Your task to perform on an android device: View the shopping cart on newegg.com. Search for "razer blackwidow" on newegg.com, select the first entry, and add it to the cart. Image 0: 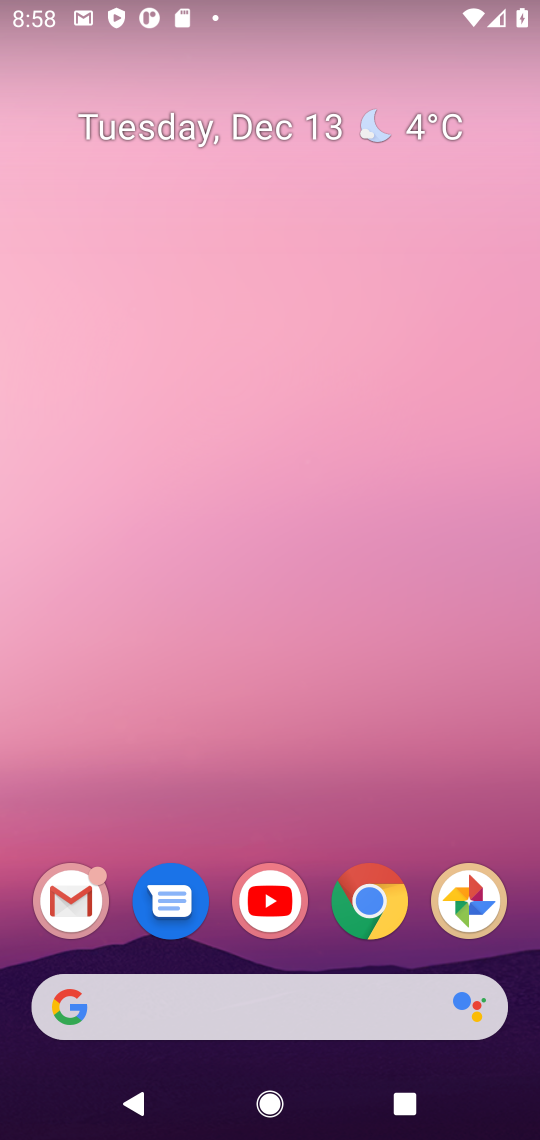
Step 0: click (370, 900)
Your task to perform on an android device: View the shopping cart on newegg.com. Search for "razer blackwidow" on newegg.com, select the first entry, and add it to the cart. Image 1: 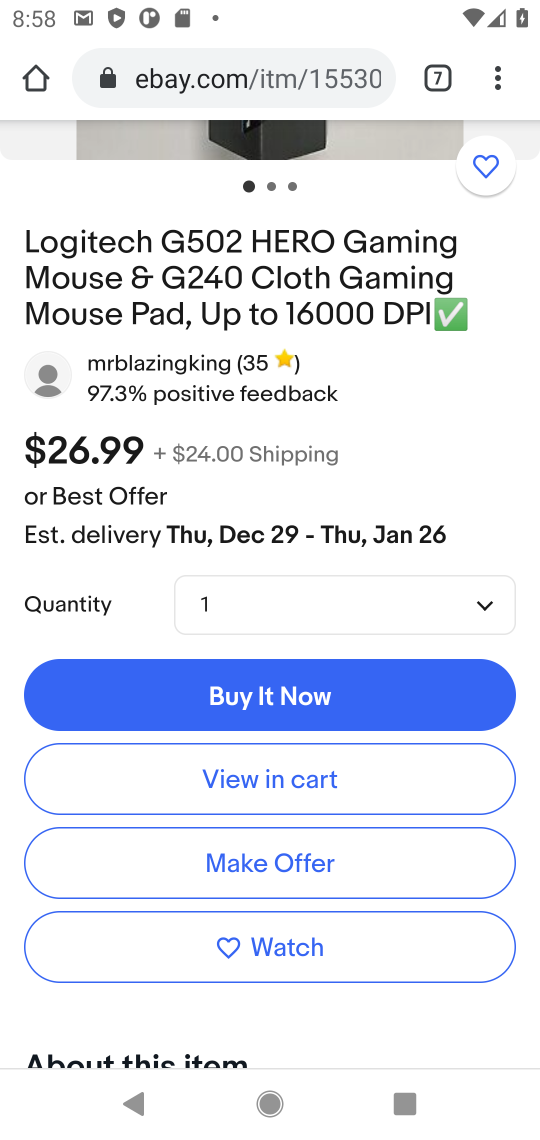
Step 1: click (434, 76)
Your task to perform on an android device: View the shopping cart on newegg.com. Search for "razer blackwidow" on newegg.com, select the first entry, and add it to the cart. Image 2: 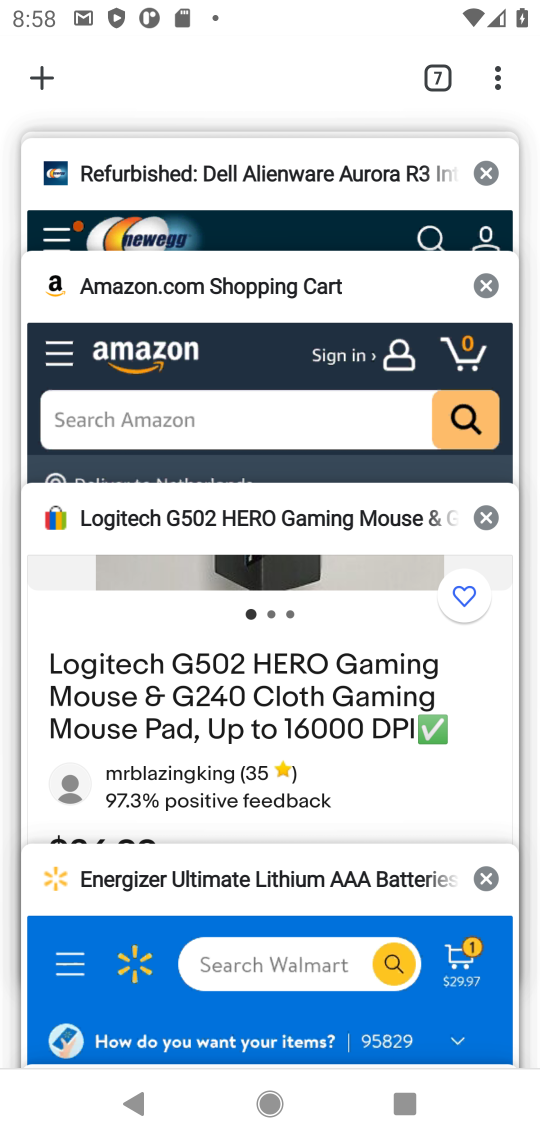
Step 2: click (322, 186)
Your task to perform on an android device: View the shopping cart on newegg.com. Search for "razer blackwidow" on newegg.com, select the first entry, and add it to the cart. Image 3: 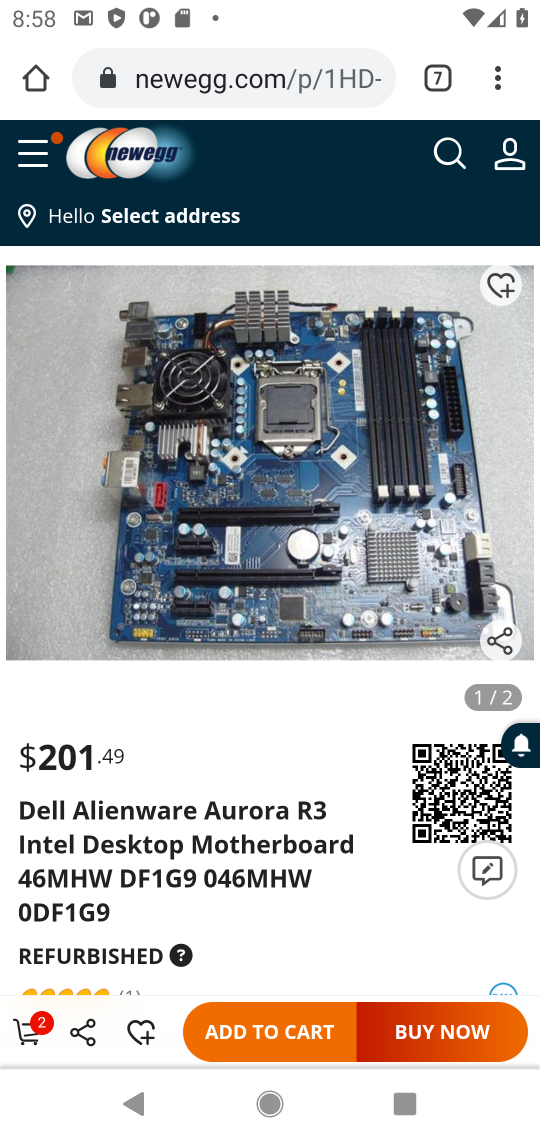
Step 3: click (443, 140)
Your task to perform on an android device: View the shopping cart on newegg.com. Search for "razer blackwidow" on newegg.com, select the first entry, and add it to the cart. Image 4: 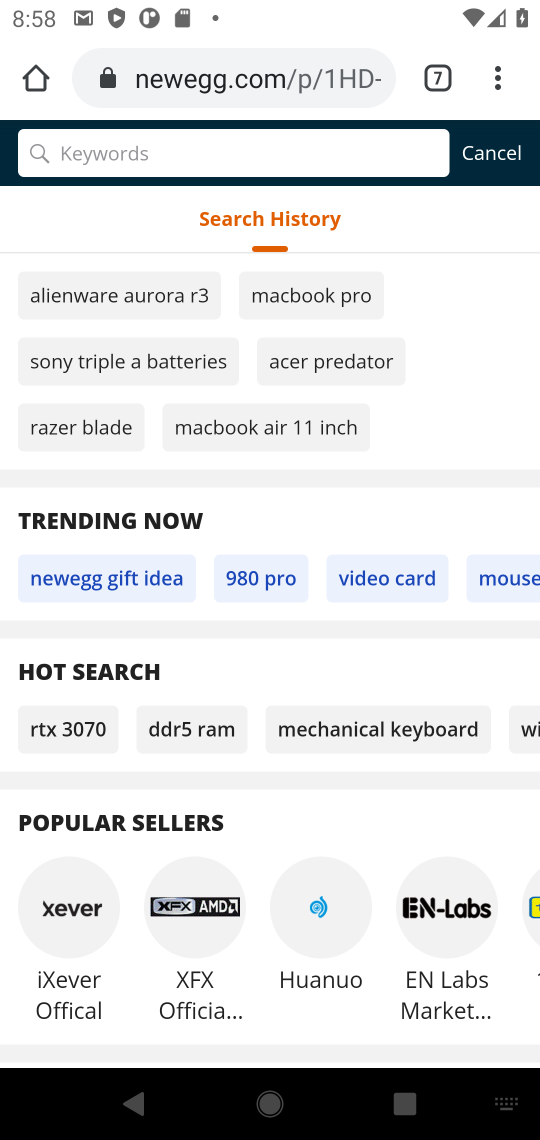
Step 4: type "razer blackwidow"
Your task to perform on an android device: View the shopping cart on newegg.com. Search for "razer blackwidow" on newegg.com, select the first entry, and add it to the cart. Image 5: 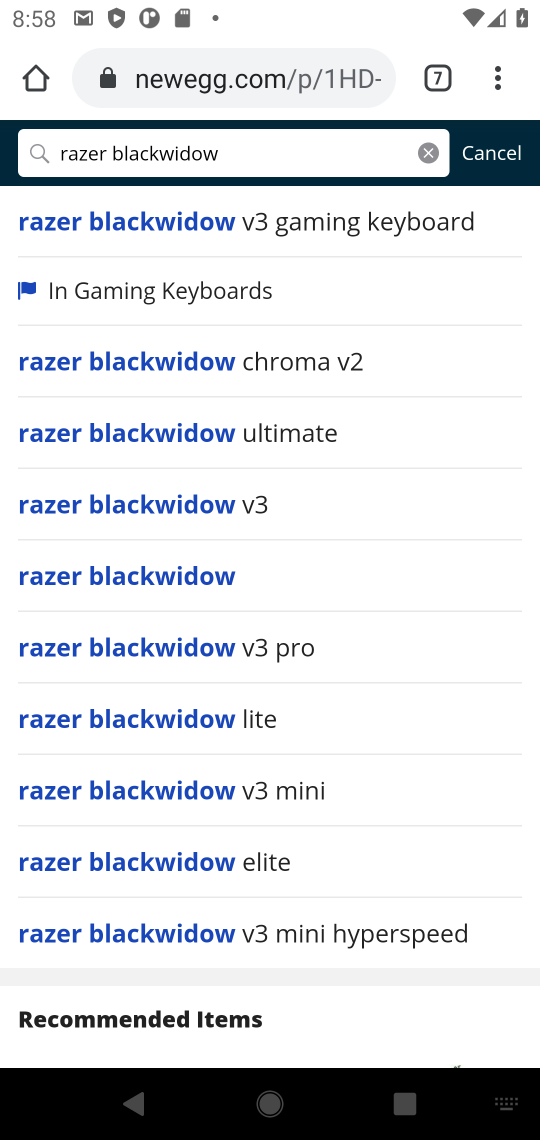
Step 5: click (198, 229)
Your task to perform on an android device: View the shopping cart on newegg.com. Search for "razer blackwidow" on newegg.com, select the first entry, and add it to the cart. Image 6: 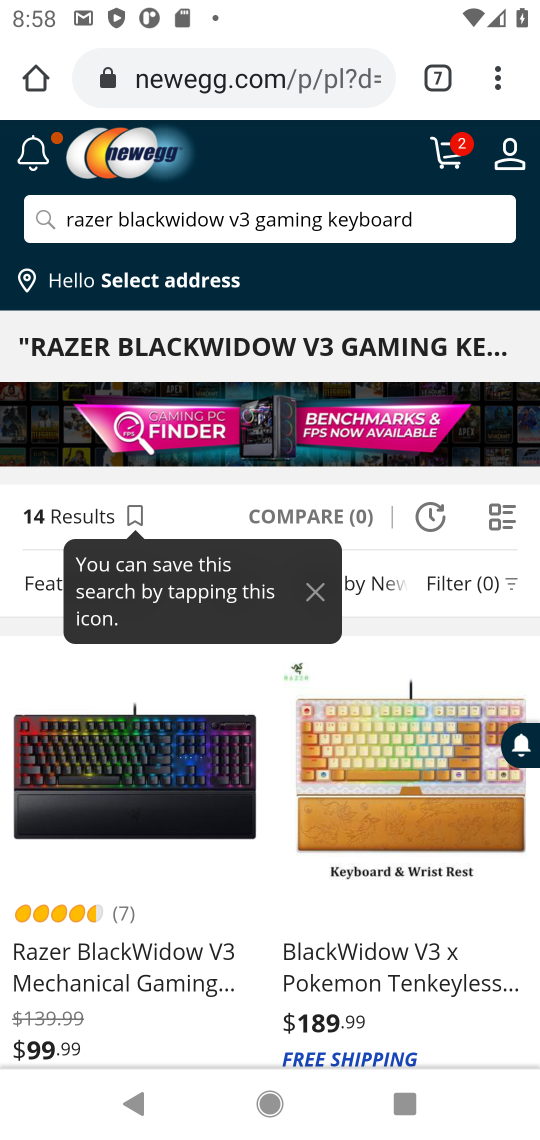
Step 6: click (94, 942)
Your task to perform on an android device: View the shopping cart on newegg.com. Search for "razer blackwidow" on newegg.com, select the first entry, and add it to the cart. Image 7: 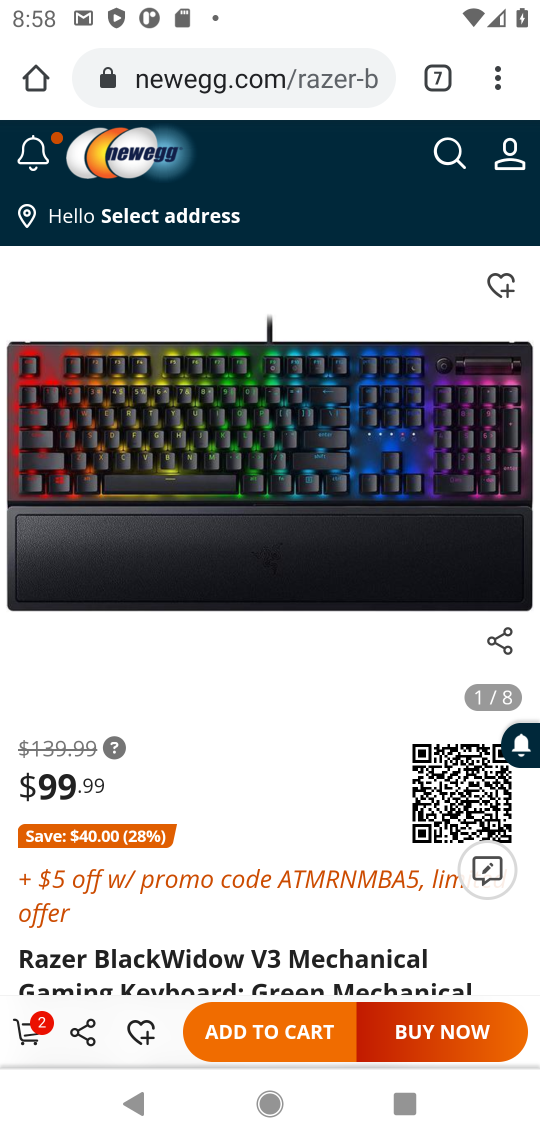
Step 7: click (271, 1040)
Your task to perform on an android device: View the shopping cart on newegg.com. Search for "razer blackwidow" on newegg.com, select the first entry, and add it to the cart. Image 8: 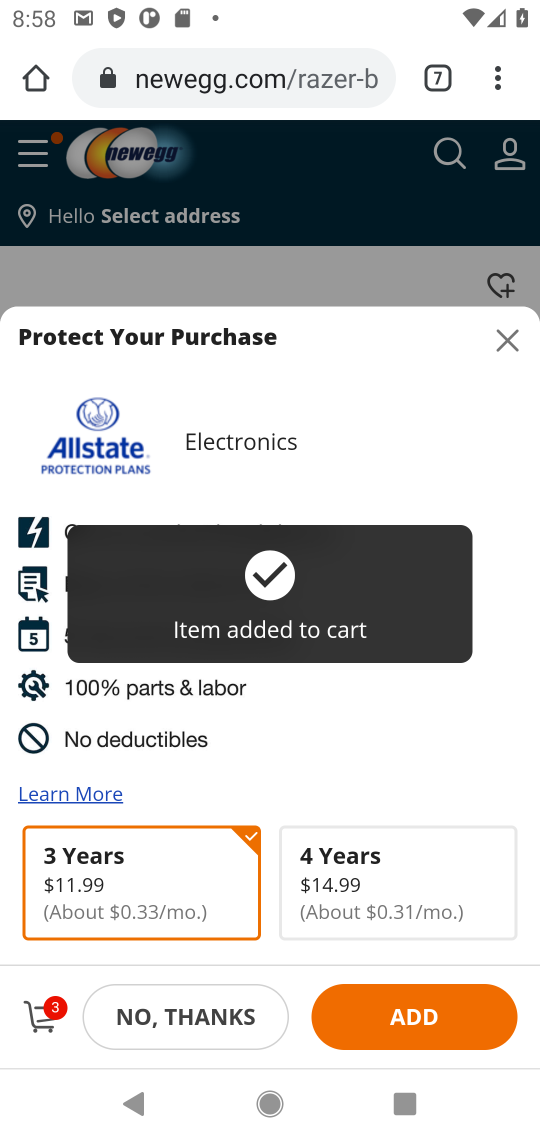
Step 8: task complete